Your task to perform on an android device: What's the weather going to be this weekend? Image 0: 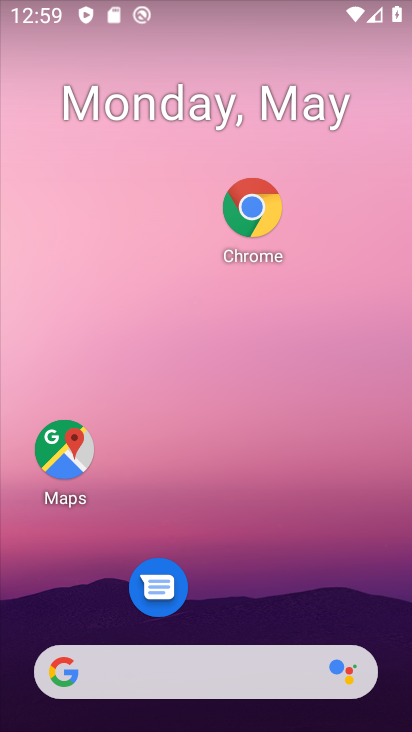
Step 0: click (244, 207)
Your task to perform on an android device: What's the weather going to be this weekend? Image 1: 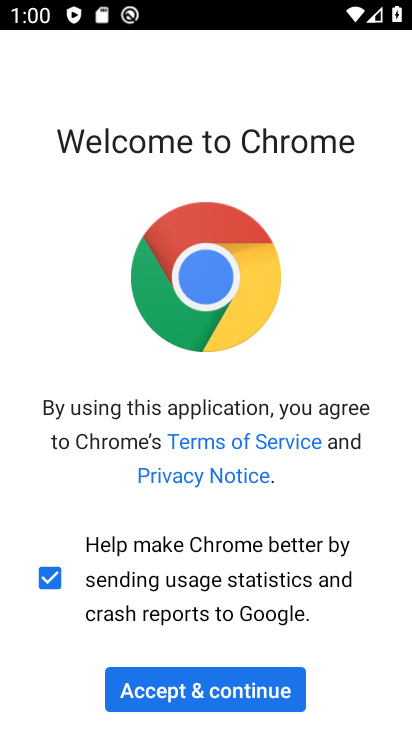
Step 1: click (215, 683)
Your task to perform on an android device: What's the weather going to be this weekend? Image 2: 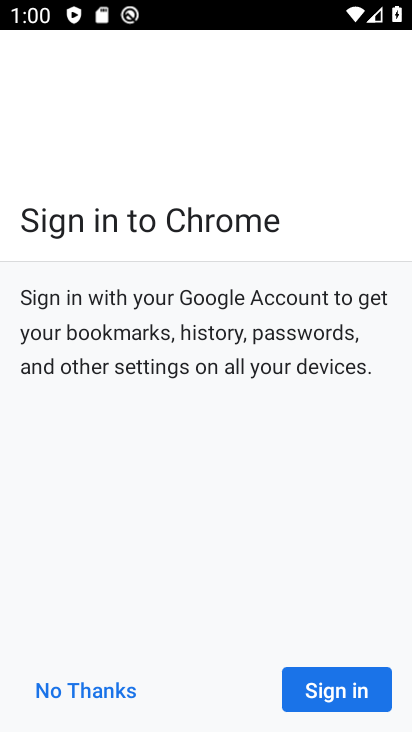
Step 2: click (215, 683)
Your task to perform on an android device: What's the weather going to be this weekend? Image 3: 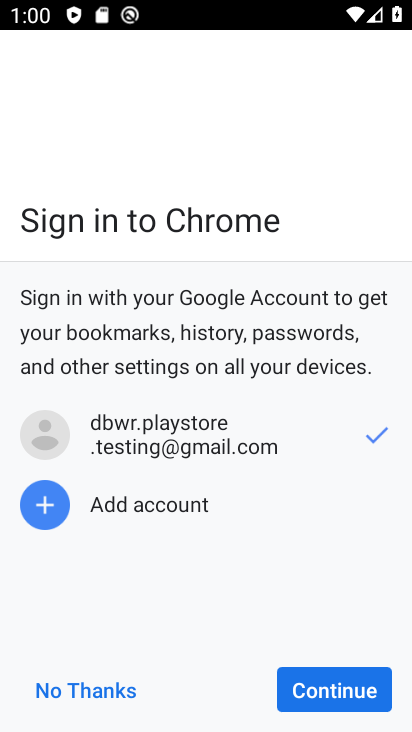
Step 3: click (126, 688)
Your task to perform on an android device: What's the weather going to be this weekend? Image 4: 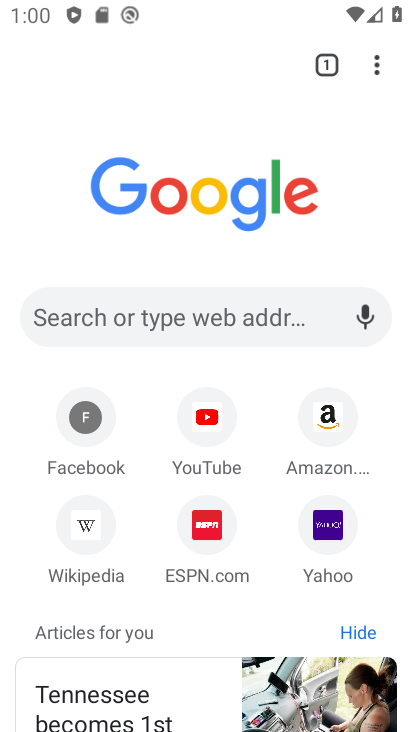
Step 4: click (155, 327)
Your task to perform on an android device: What's the weather going to be this weekend? Image 5: 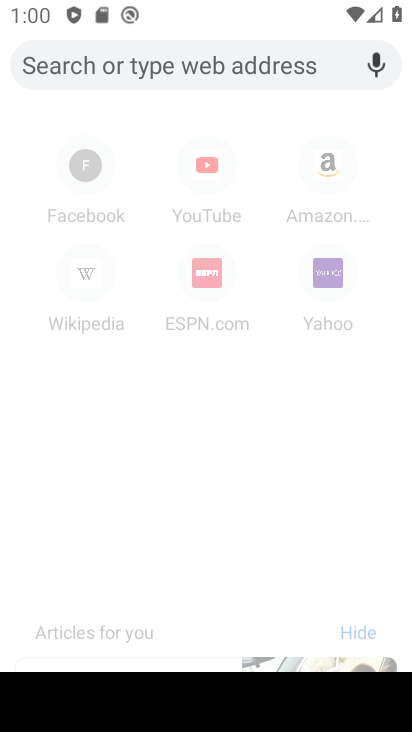
Step 5: type "weather"
Your task to perform on an android device: What's the weather going to be this weekend? Image 6: 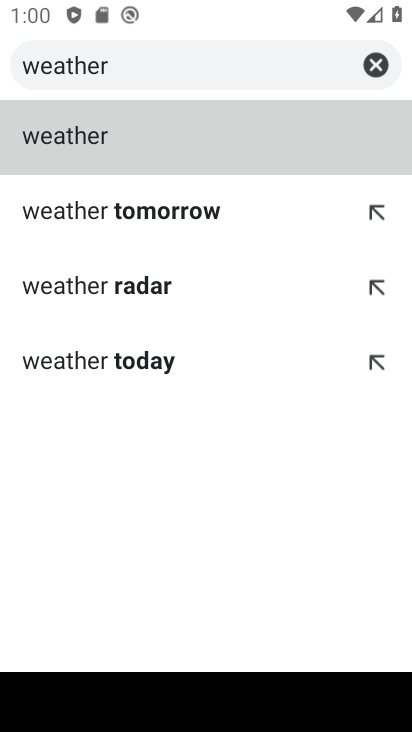
Step 6: click (150, 154)
Your task to perform on an android device: What's the weather going to be this weekend? Image 7: 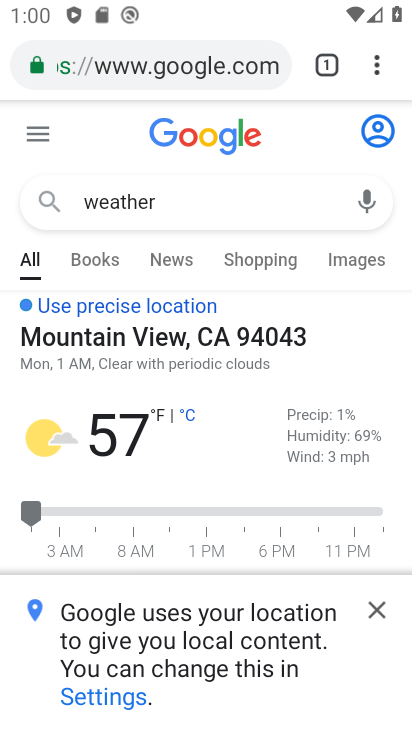
Step 7: drag from (245, 468) to (209, 165)
Your task to perform on an android device: What's the weather going to be this weekend? Image 8: 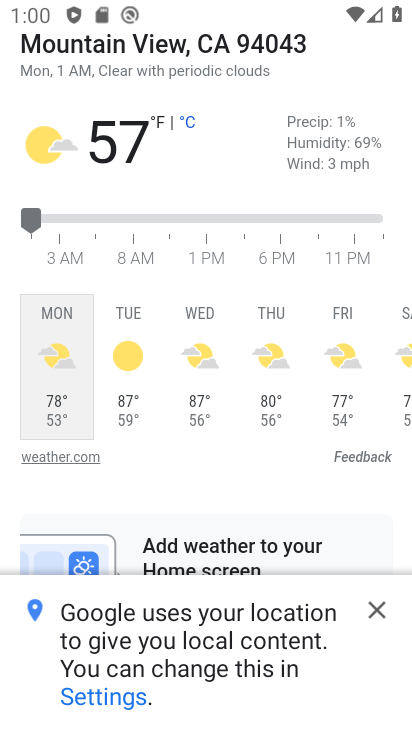
Step 8: drag from (340, 340) to (85, 314)
Your task to perform on an android device: What's the weather going to be this weekend? Image 9: 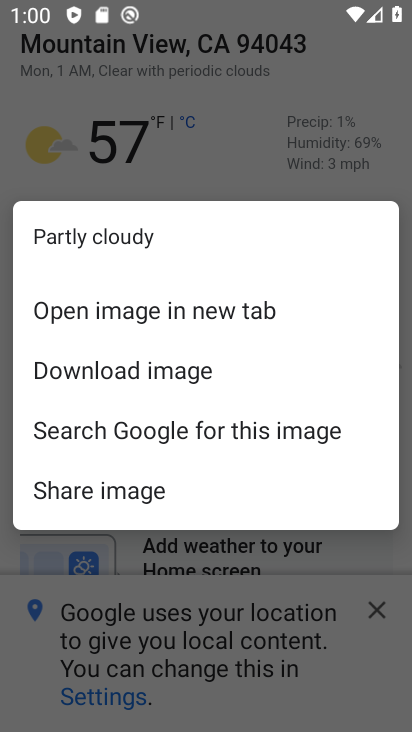
Step 9: click (264, 156)
Your task to perform on an android device: What's the weather going to be this weekend? Image 10: 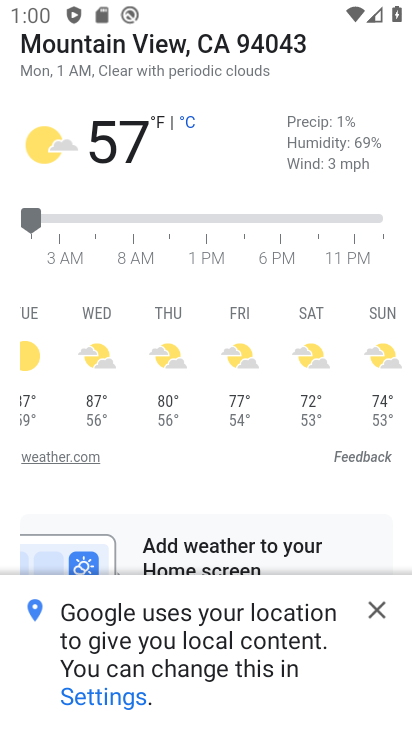
Step 10: task complete